Your task to perform on an android device: Open Maps and search for coffee Image 0: 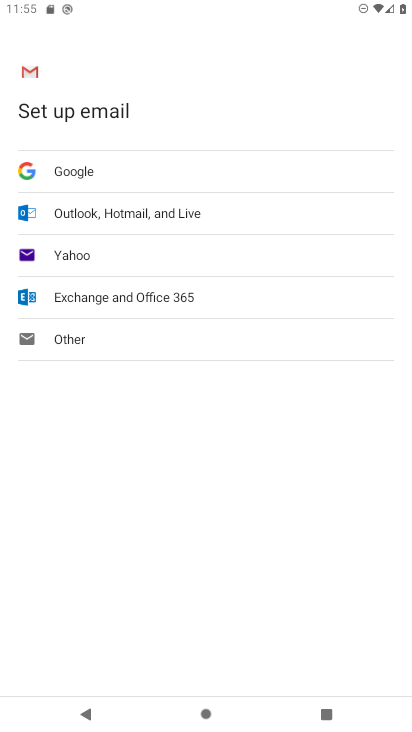
Step 0: press home button
Your task to perform on an android device: Open Maps and search for coffee Image 1: 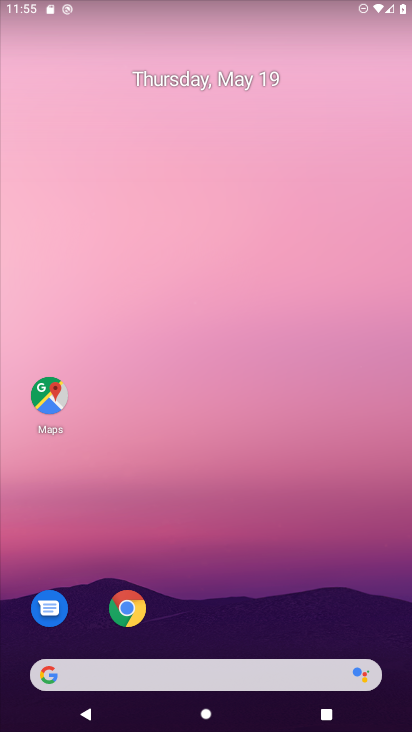
Step 1: click (51, 406)
Your task to perform on an android device: Open Maps and search for coffee Image 2: 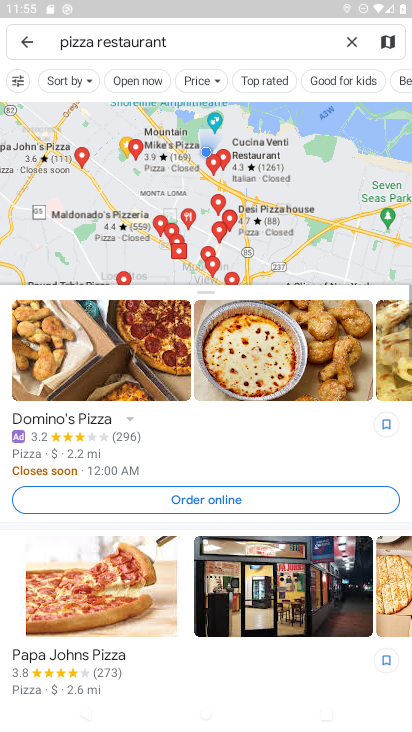
Step 2: click (335, 40)
Your task to perform on an android device: Open Maps and search for coffee Image 3: 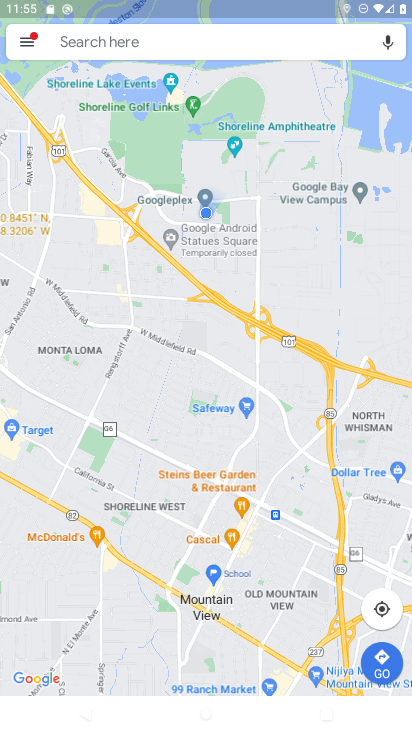
Step 3: type "coffee"
Your task to perform on an android device: Open Maps and search for coffee Image 4: 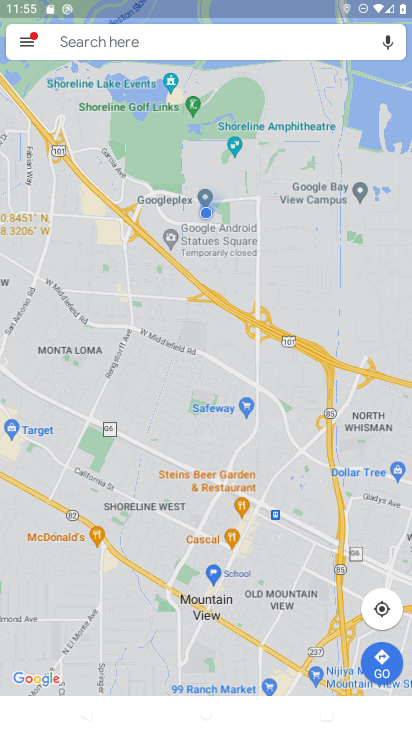
Step 4: click (222, 45)
Your task to perform on an android device: Open Maps and search for coffee Image 5: 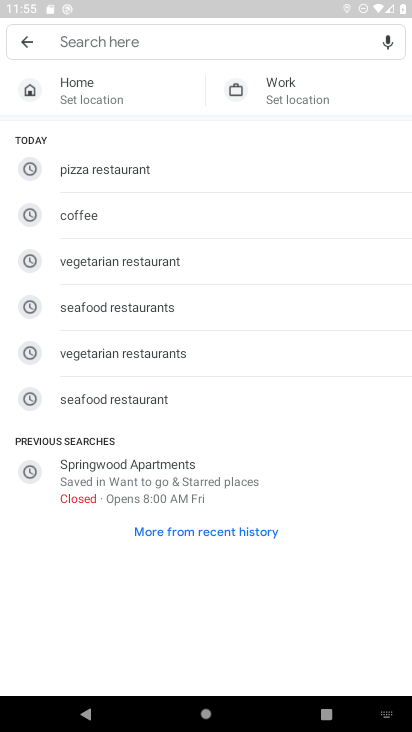
Step 5: click (241, 42)
Your task to perform on an android device: Open Maps and search for coffee Image 6: 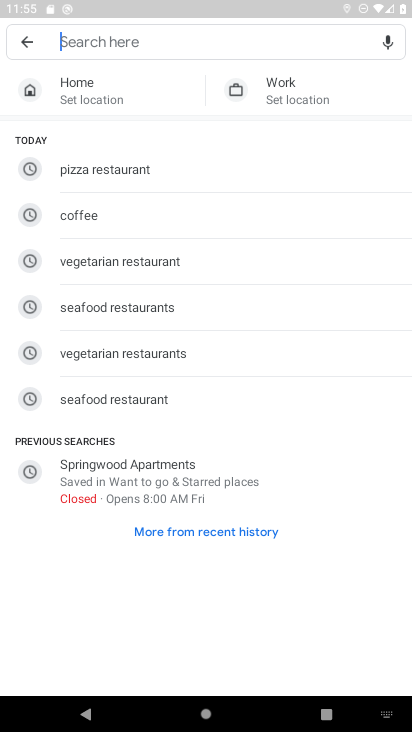
Step 6: click (241, 42)
Your task to perform on an android device: Open Maps and search for coffee Image 7: 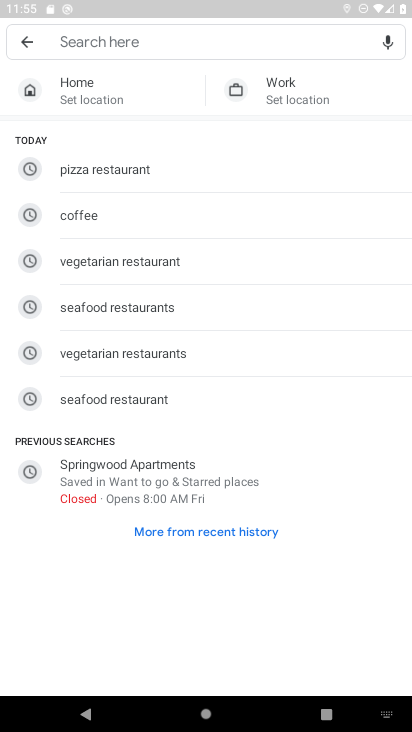
Step 7: type "coffee"
Your task to perform on an android device: Open Maps and search for coffee Image 8: 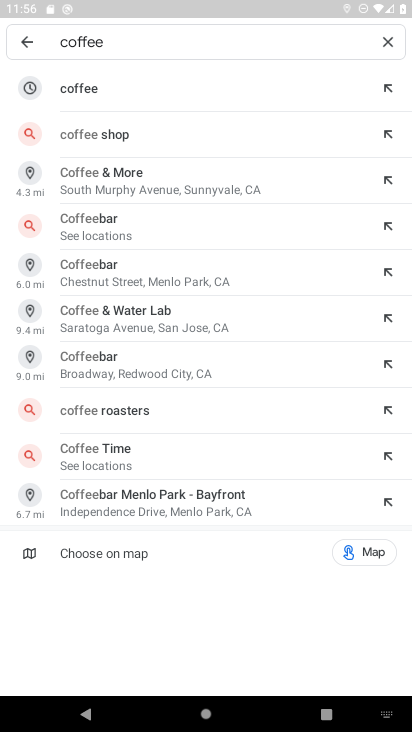
Step 8: click (103, 81)
Your task to perform on an android device: Open Maps and search for coffee Image 9: 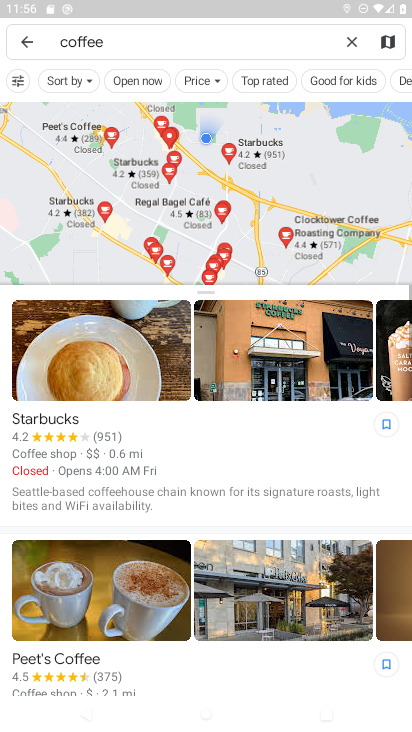
Step 9: task complete